Your task to perform on an android device: Open the map Image 0: 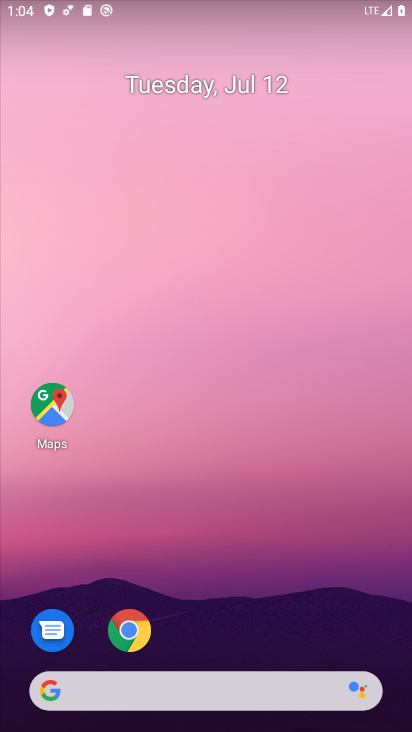
Step 0: click (51, 403)
Your task to perform on an android device: Open the map Image 1: 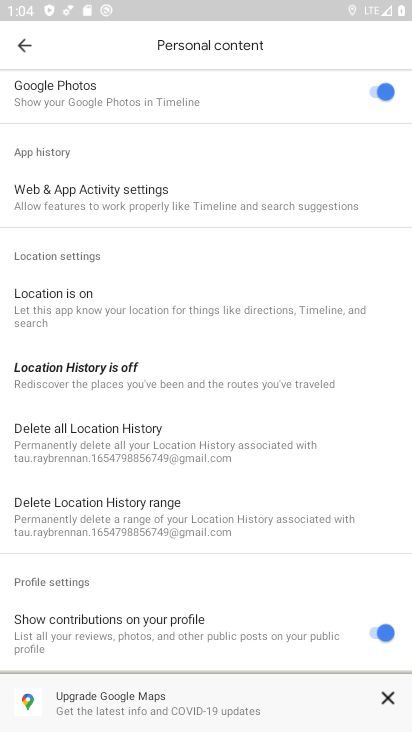
Step 1: task complete